Your task to perform on an android device: When is my next meeting? Image 0: 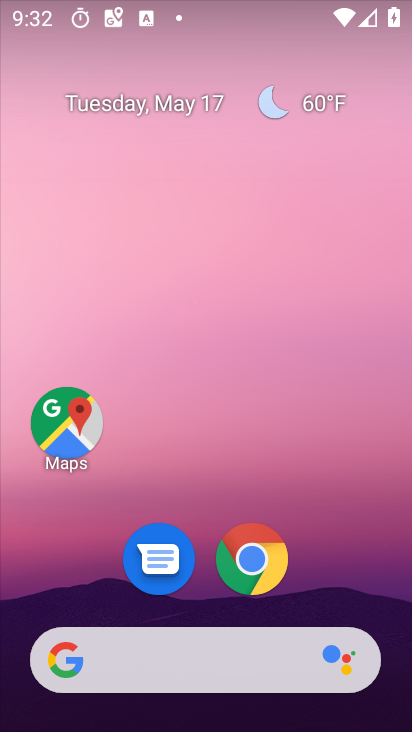
Step 0: click (275, 440)
Your task to perform on an android device: When is my next meeting? Image 1: 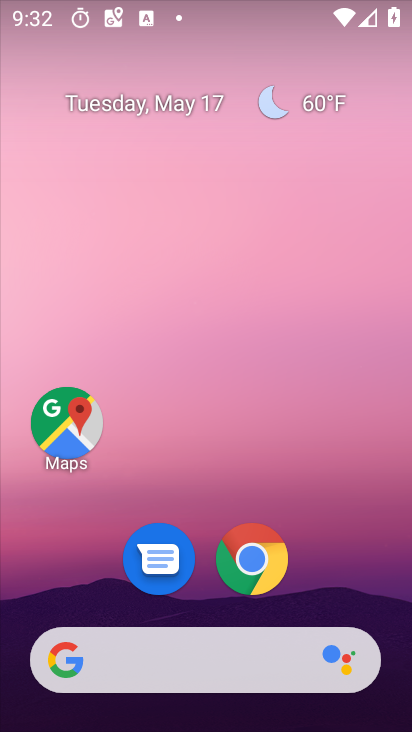
Step 1: drag from (233, 504) to (293, 66)
Your task to perform on an android device: When is my next meeting? Image 2: 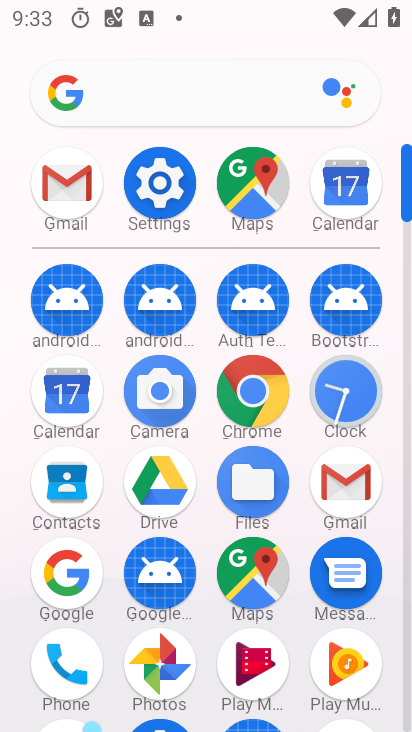
Step 2: click (76, 400)
Your task to perform on an android device: When is my next meeting? Image 3: 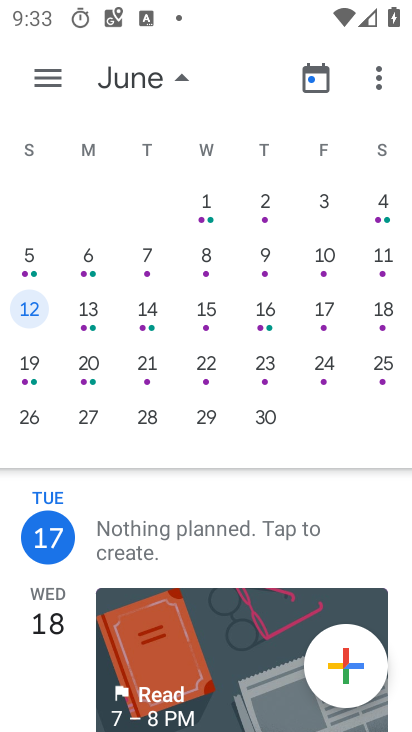
Step 3: drag from (97, 307) to (411, 347)
Your task to perform on an android device: When is my next meeting? Image 4: 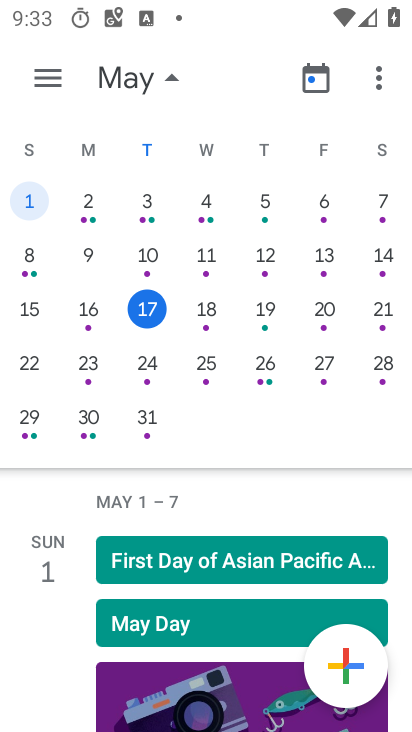
Step 4: click (153, 325)
Your task to perform on an android device: When is my next meeting? Image 5: 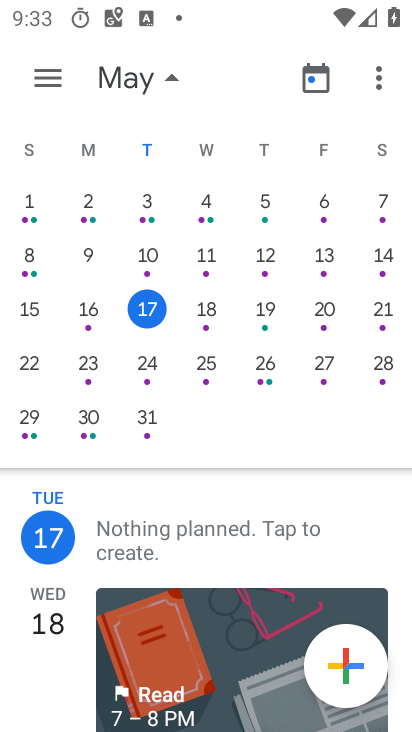
Step 5: click (57, 81)
Your task to perform on an android device: When is my next meeting? Image 6: 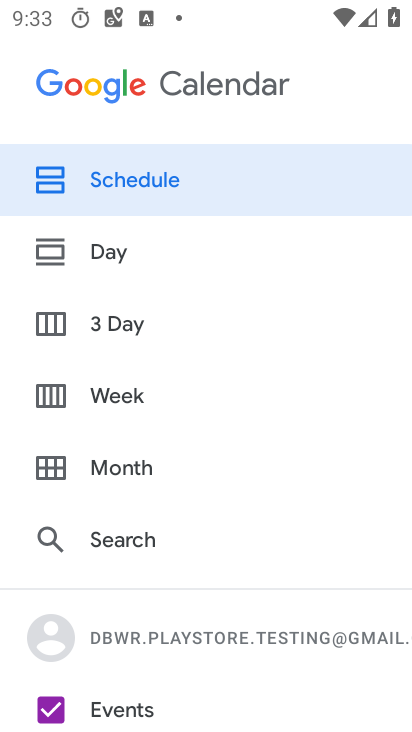
Step 6: drag from (166, 643) to (290, 208)
Your task to perform on an android device: When is my next meeting? Image 7: 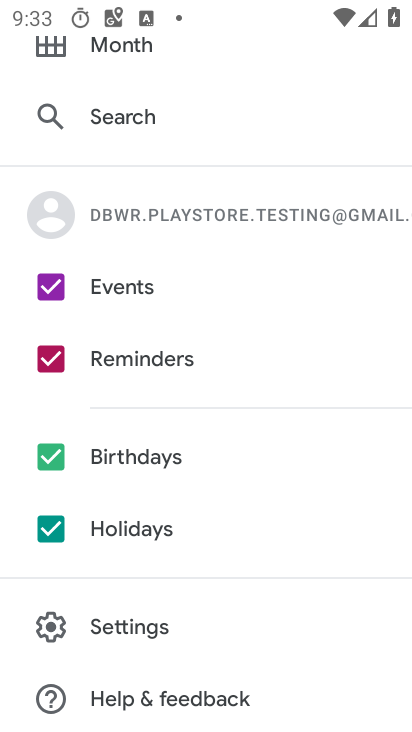
Step 7: click (61, 526)
Your task to perform on an android device: When is my next meeting? Image 8: 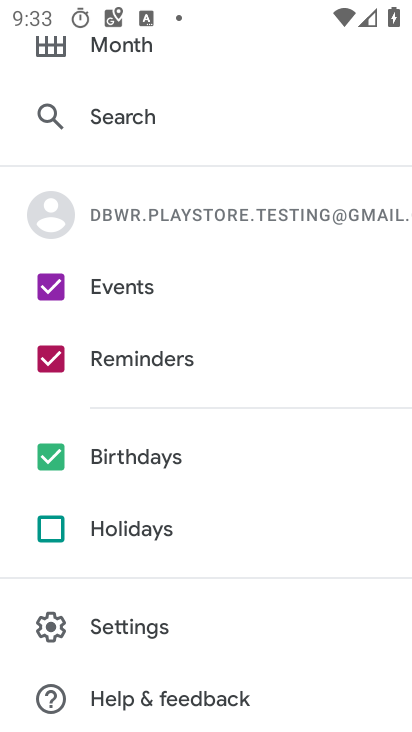
Step 8: click (55, 464)
Your task to perform on an android device: When is my next meeting? Image 9: 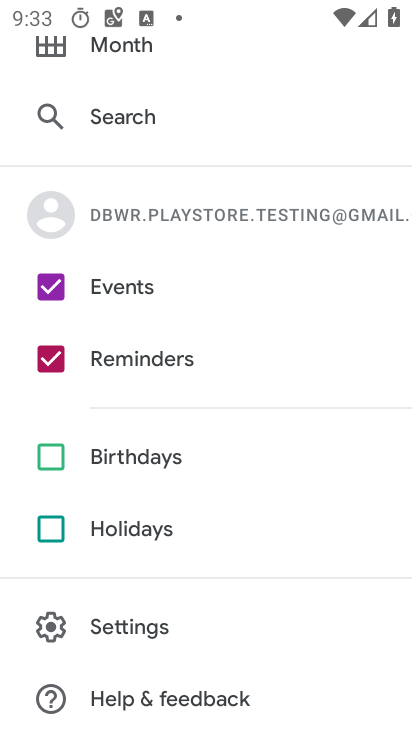
Step 9: task complete